Your task to perform on an android device: turn on showing notifications on the lock screen Image 0: 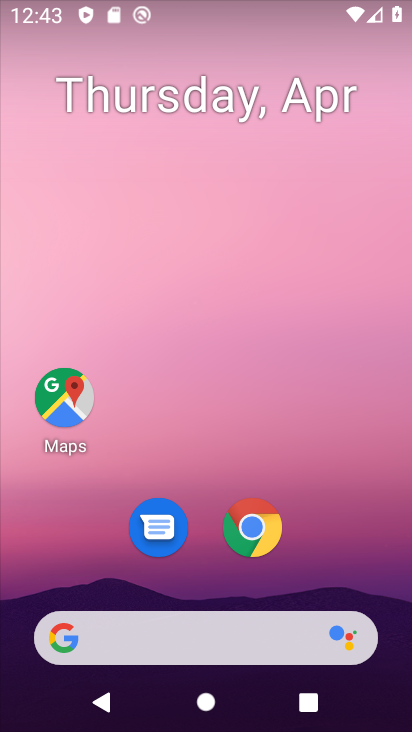
Step 0: drag from (200, 530) to (232, 33)
Your task to perform on an android device: turn on showing notifications on the lock screen Image 1: 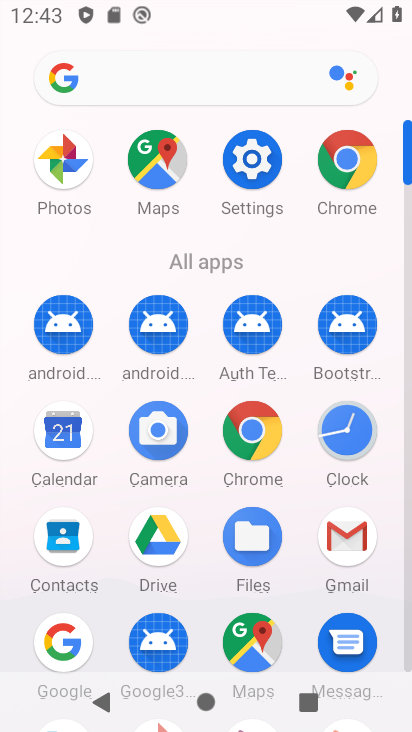
Step 1: click (252, 178)
Your task to perform on an android device: turn on showing notifications on the lock screen Image 2: 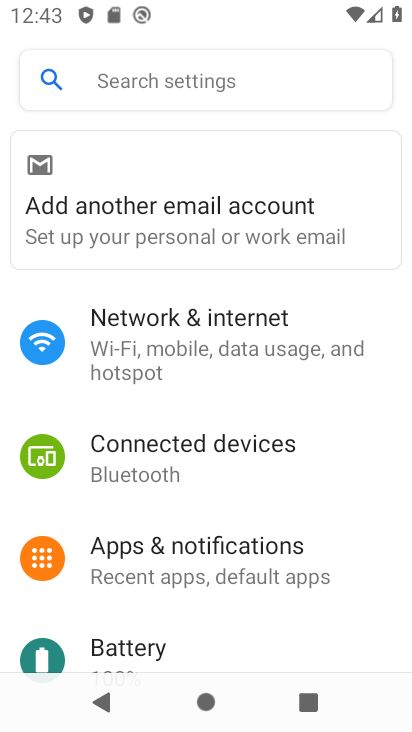
Step 2: click (148, 592)
Your task to perform on an android device: turn on showing notifications on the lock screen Image 3: 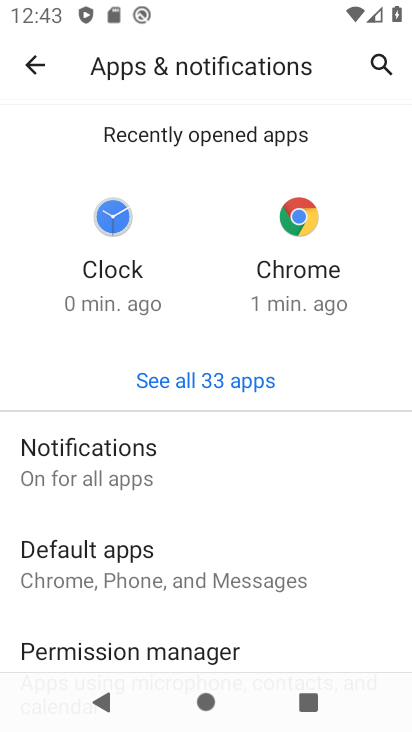
Step 3: click (157, 474)
Your task to perform on an android device: turn on showing notifications on the lock screen Image 4: 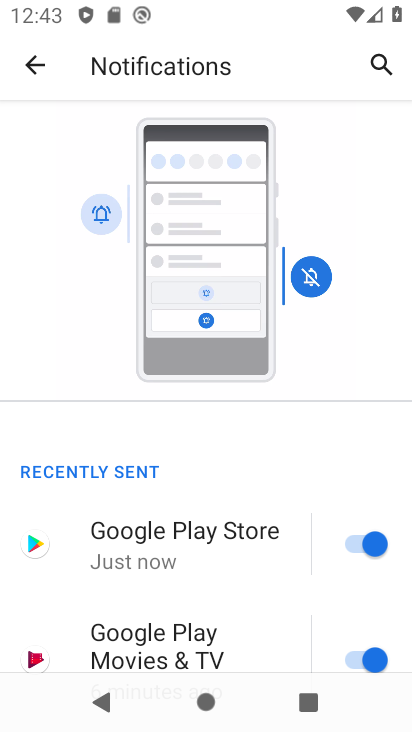
Step 4: drag from (186, 611) to (190, 271)
Your task to perform on an android device: turn on showing notifications on the lock screen Image 5: 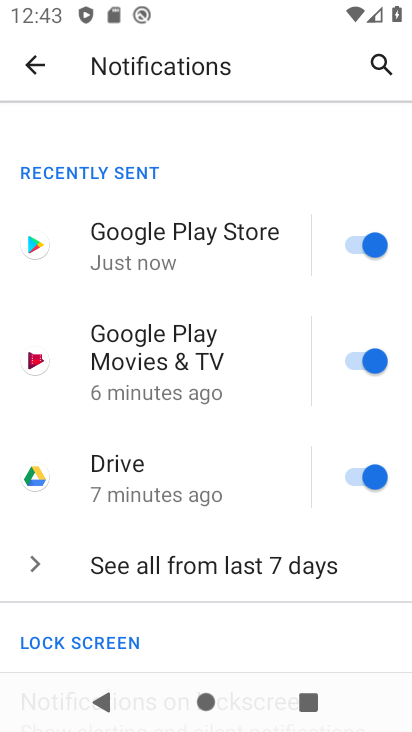
Step 5: drag from (200, 641) to (194, 402)
Your task to perform on an android device: turn on showing notifications on the lock screen Image 6: 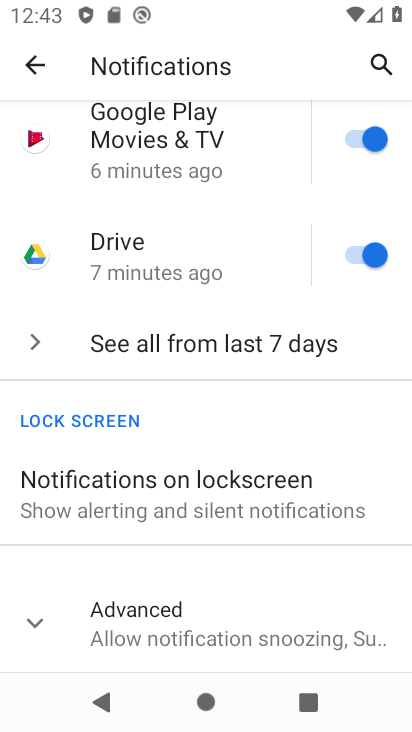
Step 6: click (172, 515)
Your task to perform on an android device: turn on showing notifications on the lock screen Image 7: 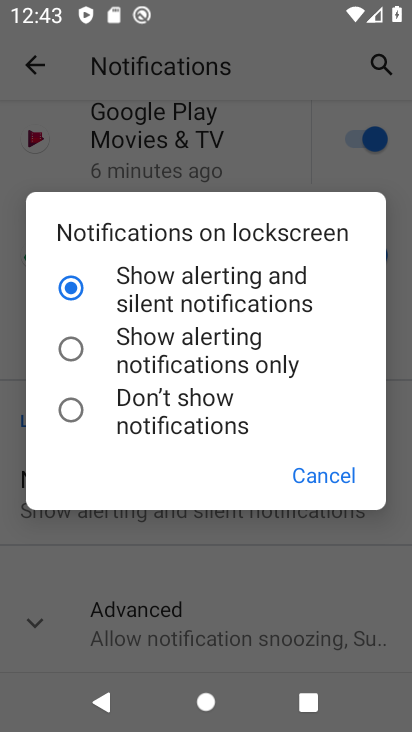
Step 7: task complete